Your task to perform on an android device: check the backup settings in the google photos Image 0: 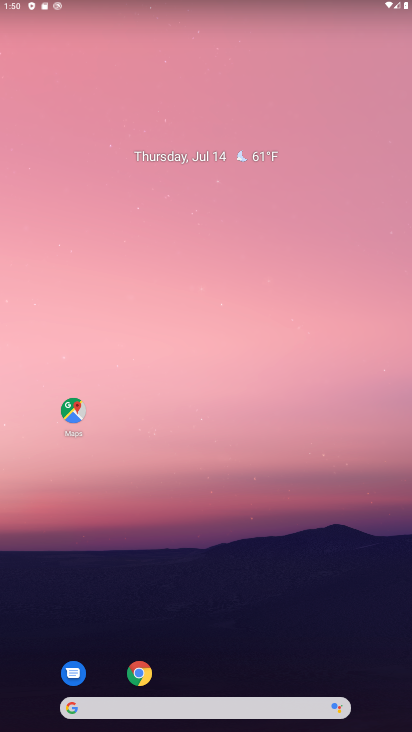
Step 0: drag from (190, 661) to (248, 97)
Your task to perform on an android device: check the backup settings in the google photos Image 1: 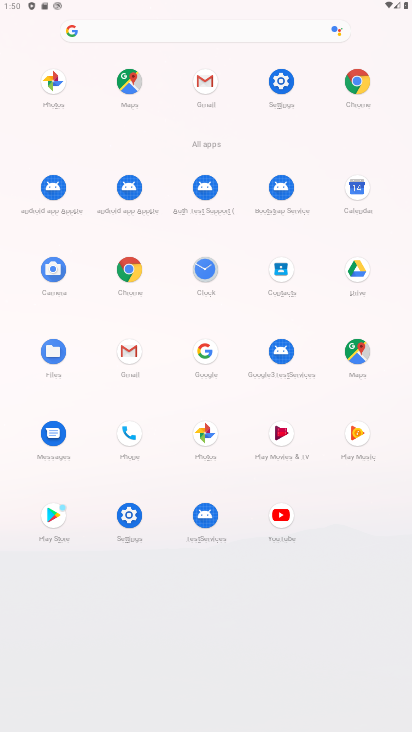
Step 1: click (47, 85)
Your task to perform on an android device: check the backup settings in the google photos Image 2: 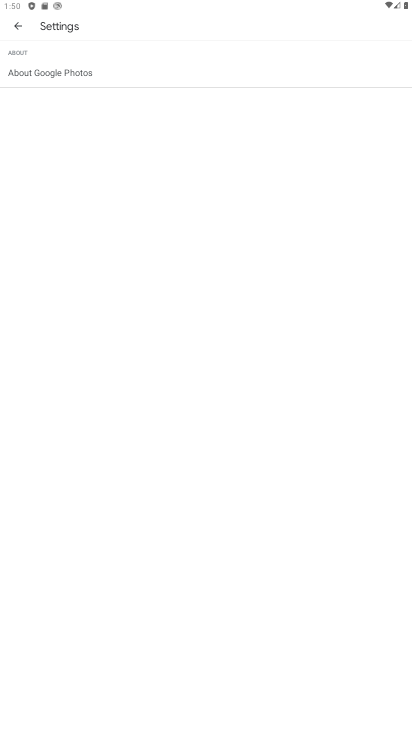
Step 2: click (15, 29)
Your task to perform on an android device: check the backup settings in the google photos Image 3: 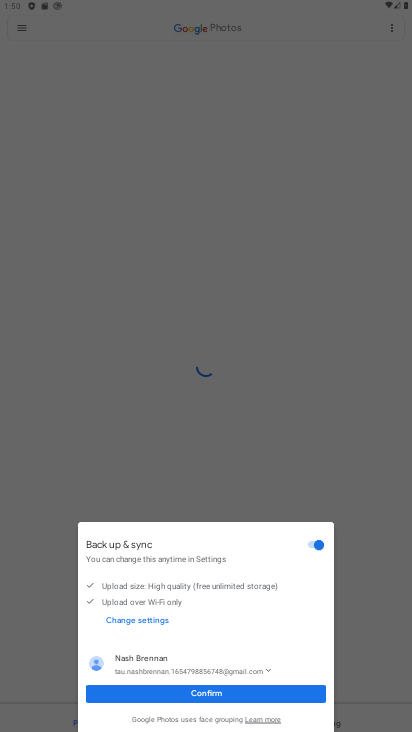
Step 3: click (134, 626)
Your task to perform on an android device: check the backup settings in the google photos Image 4: 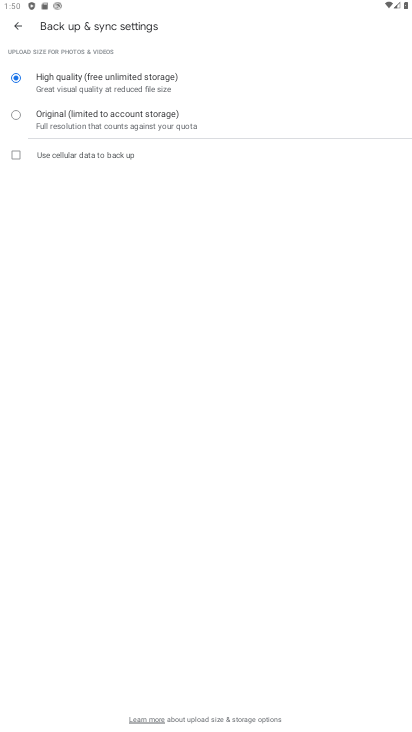
Step 4: task complete